Your task to perform on an android device: open wifi settings Image 0: 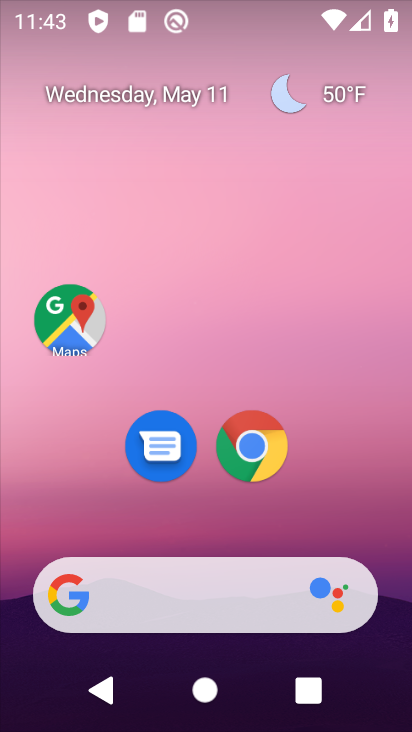
Step 0: drag from (342, 473) to (347, 46)
Your task to perform on an android device: open wifi settings Image 1: 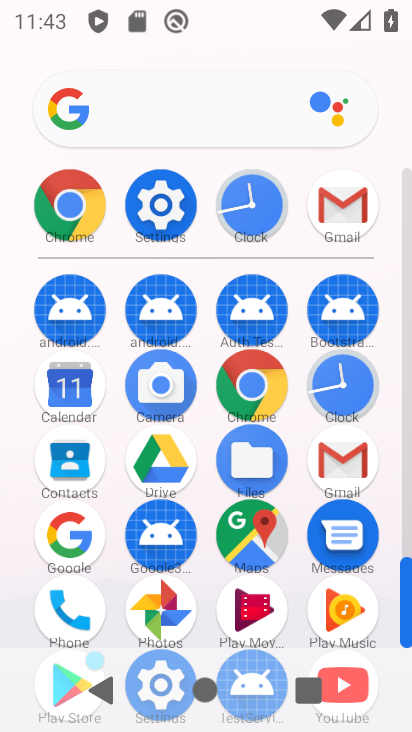
Step 1: click (150, 201)
Your task to perform on an android device: open wifi settings Image 2: 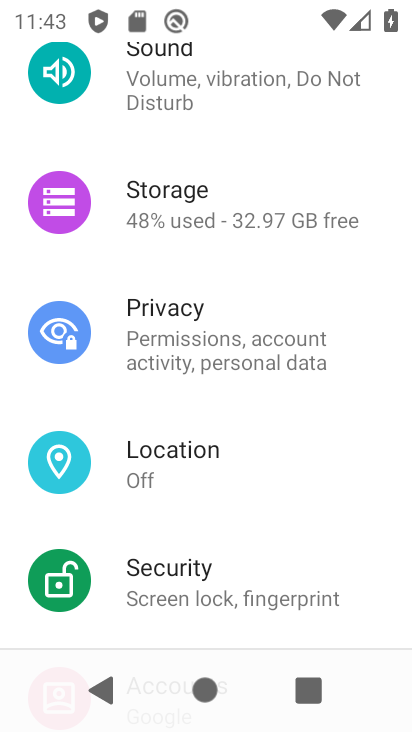
Step 2: drag from (307, 149) to (309, 501)
Your task to perform on an android device: open wifi settings Image 3: 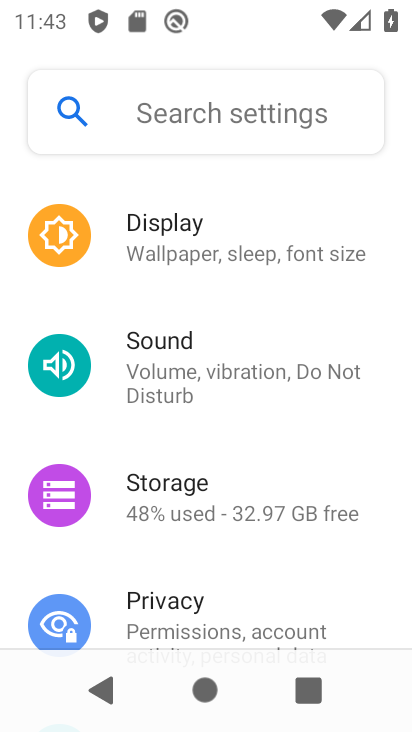
Step 3: drag from (308, 279) to (332, 543)
Your task to perform on an android device: open wifi settings Image 4: 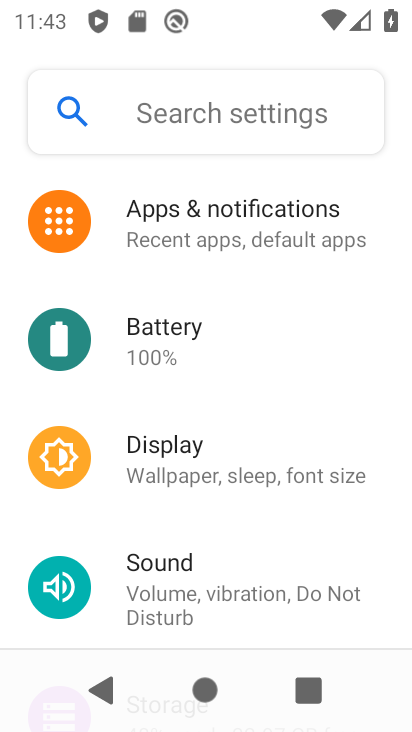
Step 4: drag from (316, 293) to (321, 554)
Your task to perform on an android device: open wifi settings Image 5: 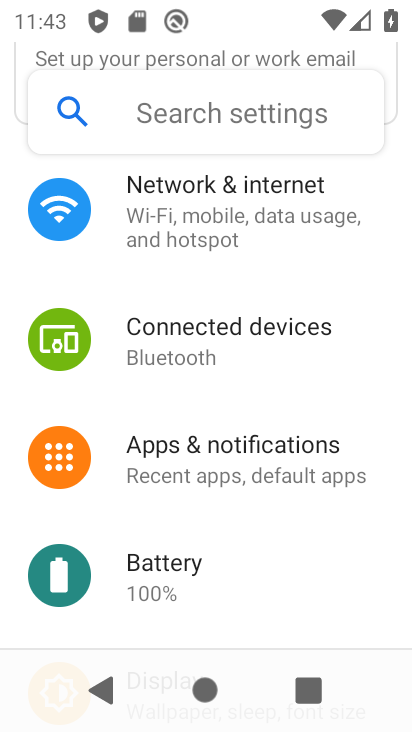
Step 5: click (302, 227)
Your task to perform on an android device: open wifi settings Image 6: 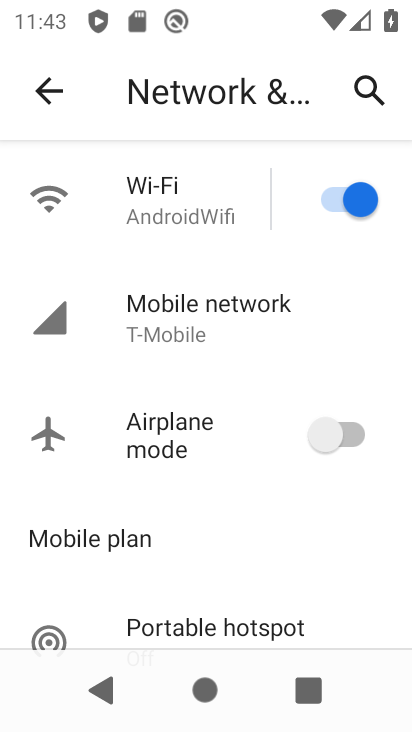
Step 6: click (164, 189)
Your task to perform on an android device: open wifi settings Image 7: 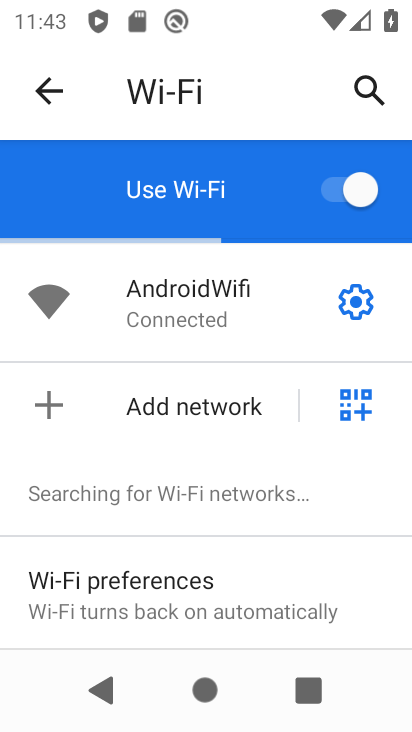
Step 7: task complete